Your task to perform on an android device: see tabs open on other devices in the chrome app Image 0: 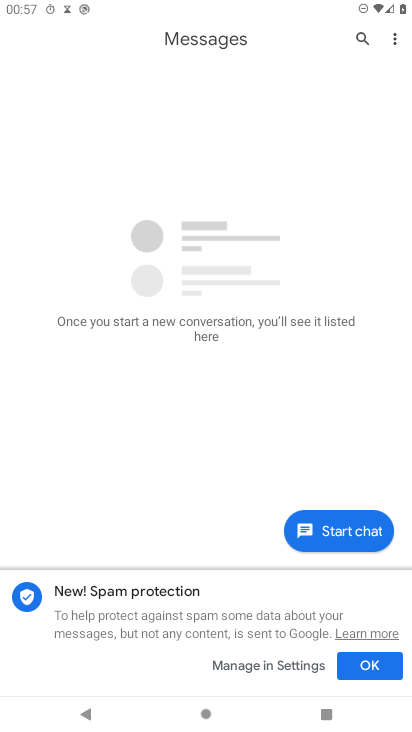
Step 0: press home button
Your task to perform on an android device: see tabs open on other devices in the chrome app Image 1: 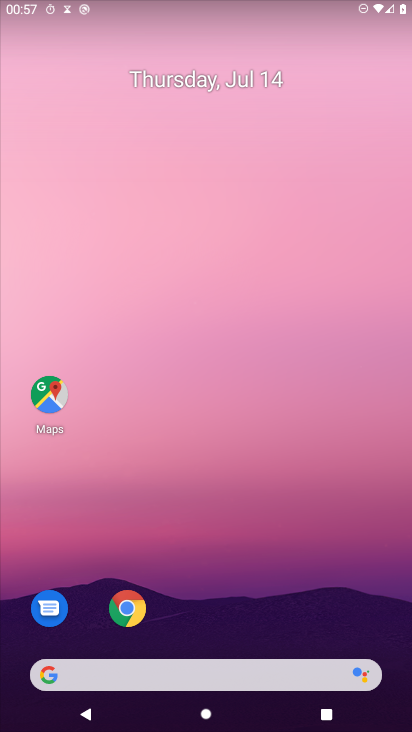
Step 1: click (128, 612)
Your task to perform on an android device: see tabs open on other devices in the chrome app Image 2: 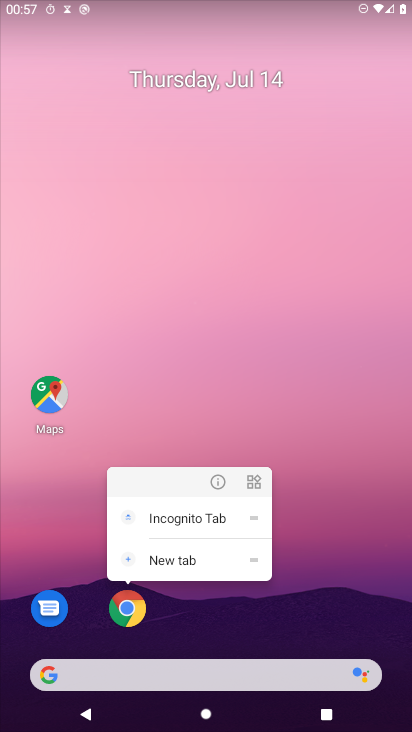
Step 2: click (136, 613)
Your task to perform on an android device: see tabs open on other devices in the chrome app Image 3: 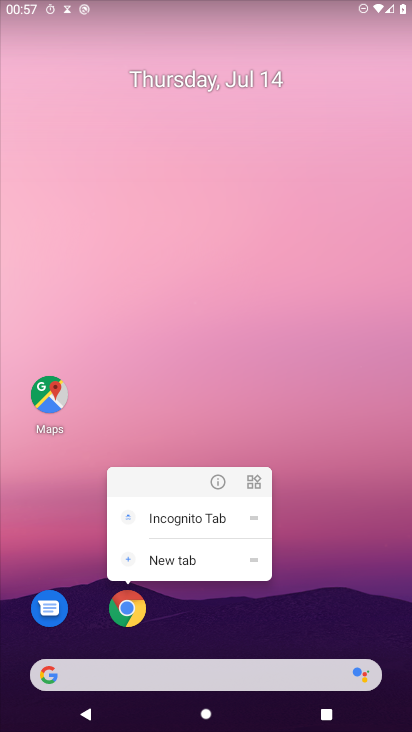
Step 3: click (136, 613)
Your task to perform on an android device: see tabs open on other devices in the chrome app Image 4: 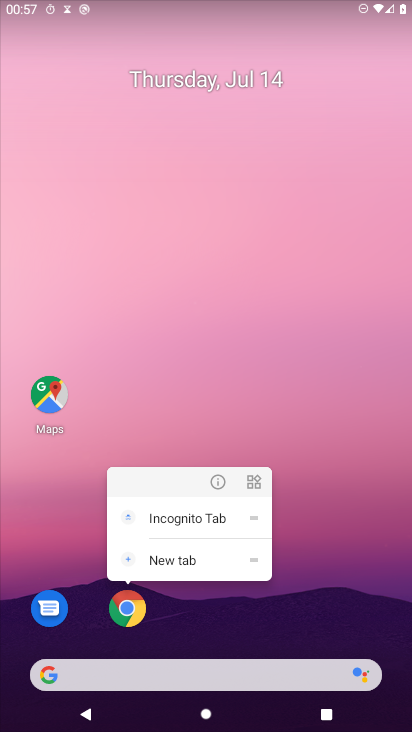
Step 4: click (126, 612)
Your task to perform on an android device: see tabs open on other devices in the chrome app Image 5: 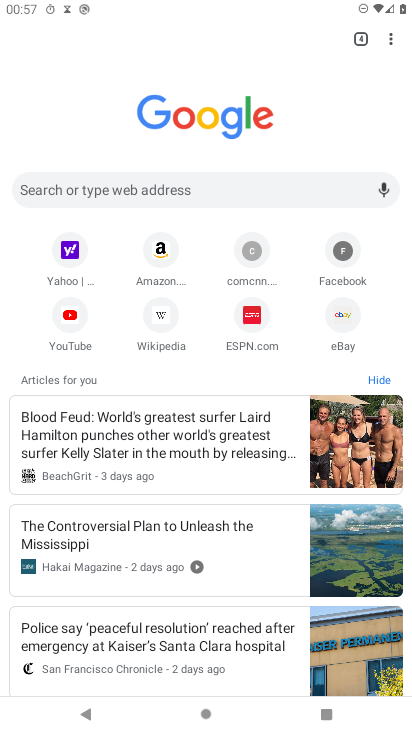
Step 5: task complete